Your task to perform on an android device: Open the Play Movies app and select the watchlist tab. Image 0: 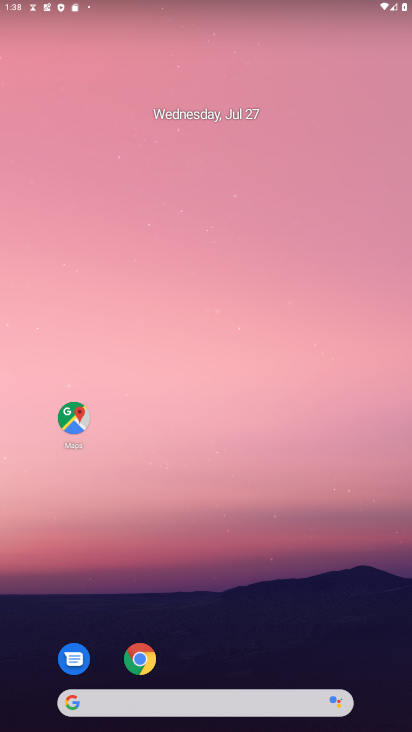
Step 0: drag from (198, 667) to (213, 79)
Your task to perform on an android device: Open the Play Movies app and select the watchlist tab. Image 1: 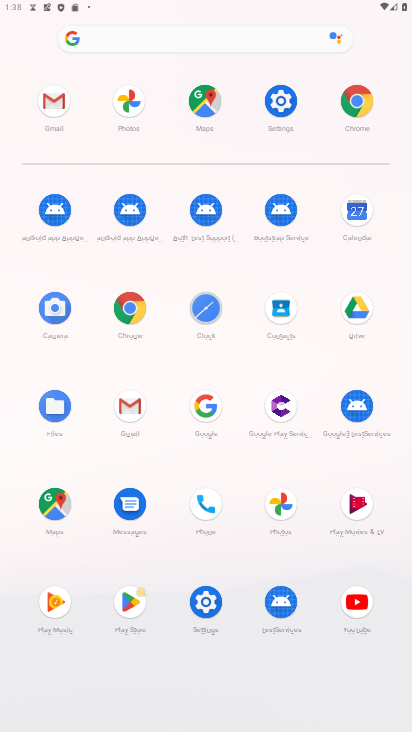
Step 1: click (359, 503)
Your task to perform on an android device: Open the Play Movies app and select the watchlist tab. Image 2: 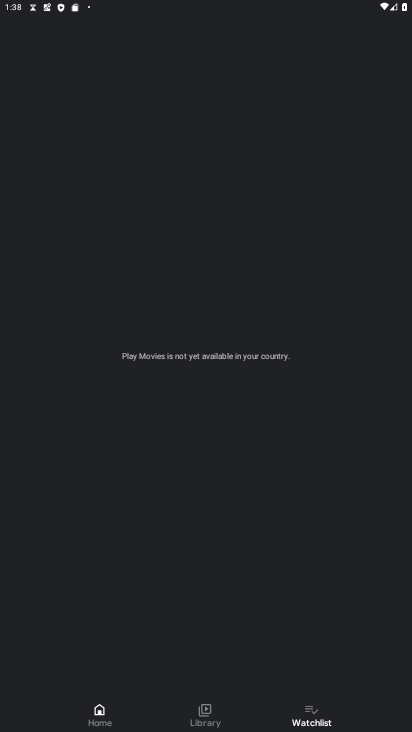
Step 2: click (305, 715)
Your task to perform on an android device: Open the Play Movies app and select the watchlist tab. Image 3: 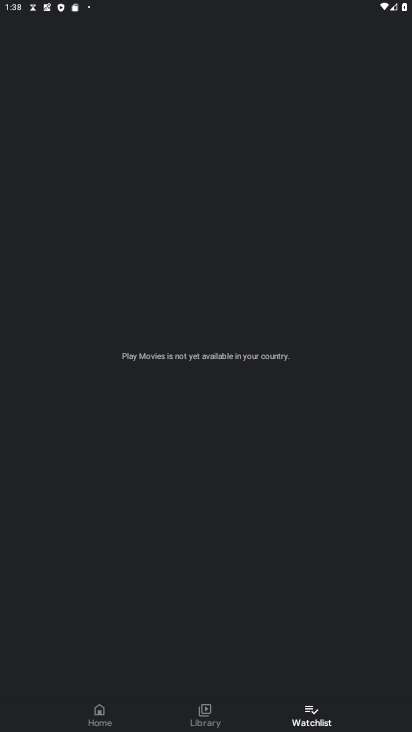
Step 3: task complete